Your task to perform on an android device: Do I have any events today? Image 0: 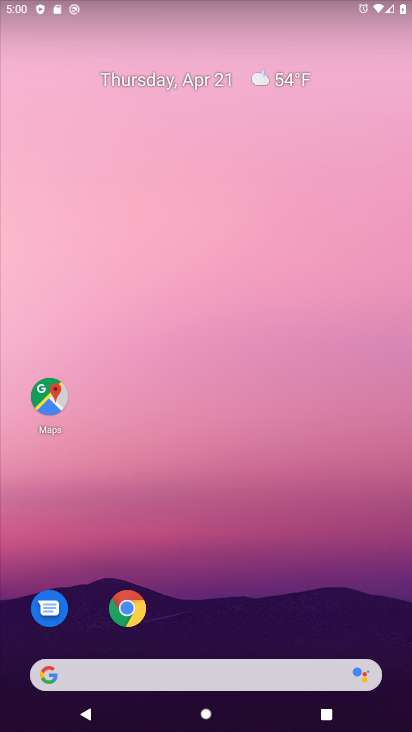
Step 0: drag from (240, 592) to (194, 110)
Your task to perform on an android device: Do I have any events today? Image 1: 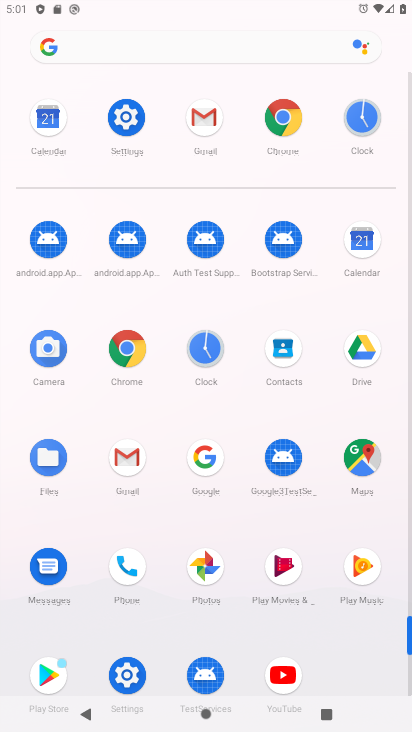
Step 1: click (47, 128)
Your task to perform on an android device: Do I have any events today? Image 2: 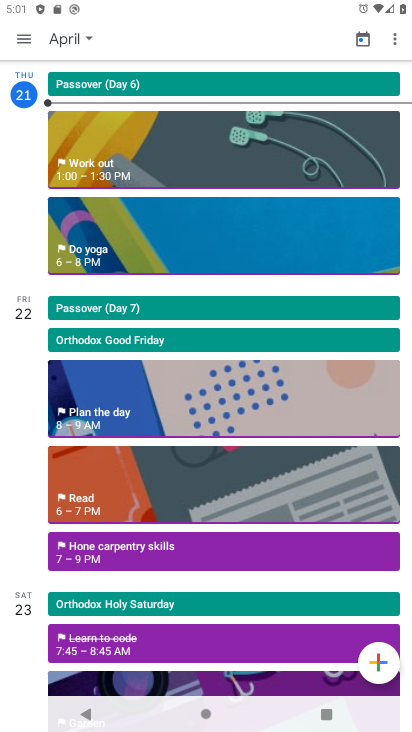
Step 2: click (25, 94)
Your task to perform on an android device: Do I have any events today? Image 3: 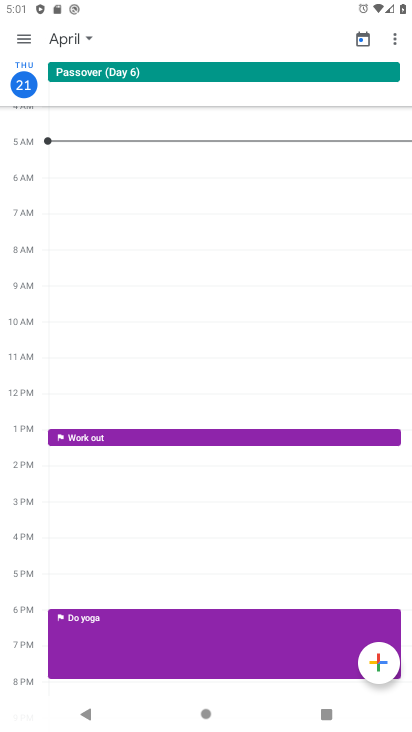
Step 3: task complete